Your task to perform on an android device: check android version Image 0: 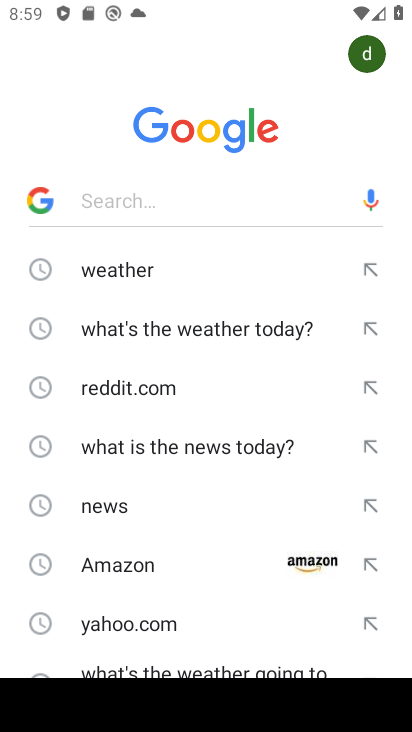
Step 0: press home button
Your task to perform on an android device: check android version Image 1: 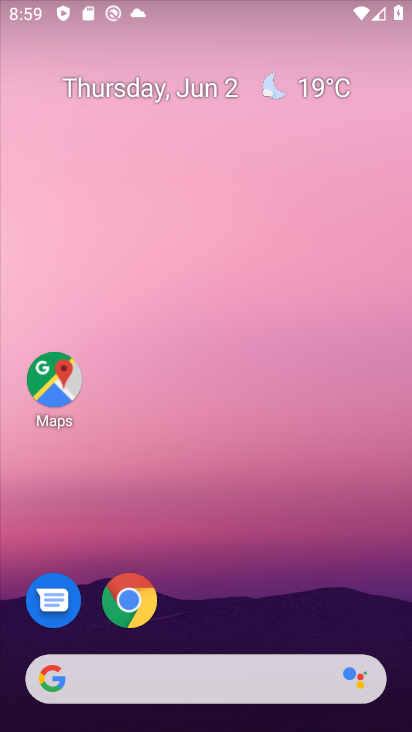
Step 1: drag from (221, 601) to (253, 247)
Your task to perform on an android device: check android version Image 2: 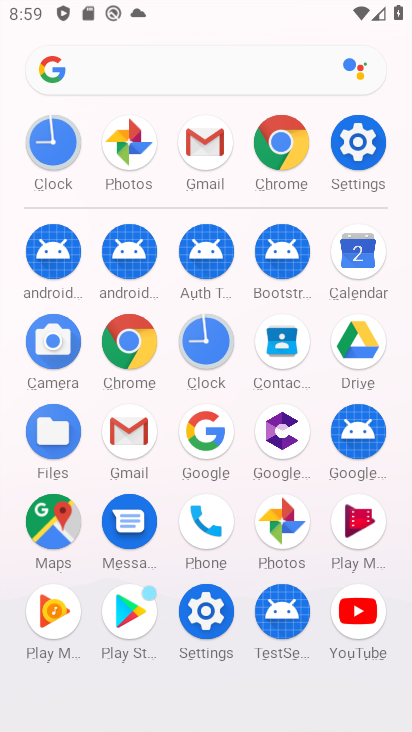
Step 2: click (185, 431)
Your task to perform on an android device: check android version Image 3: 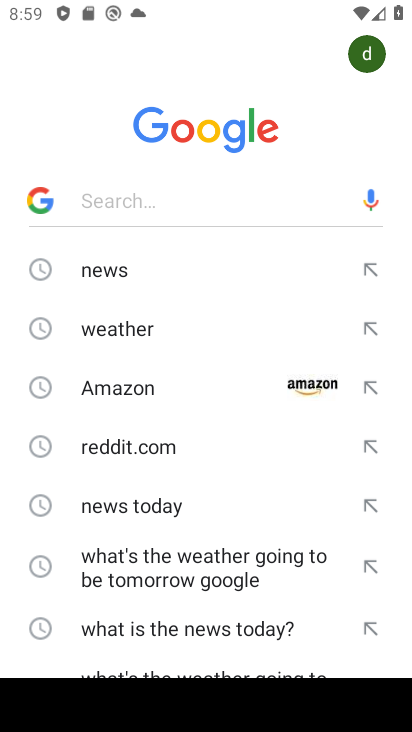
Step 3: press back button
Your task to perform on an android device: check android version Image 4: 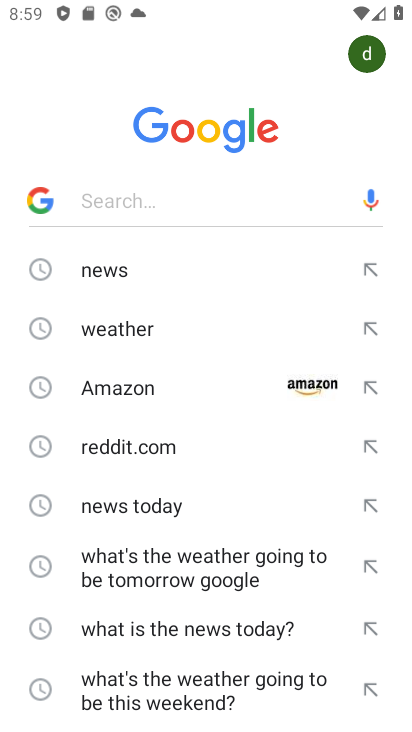
Step 4: press back button
Your task to perform on an android device: check android version Image 5: 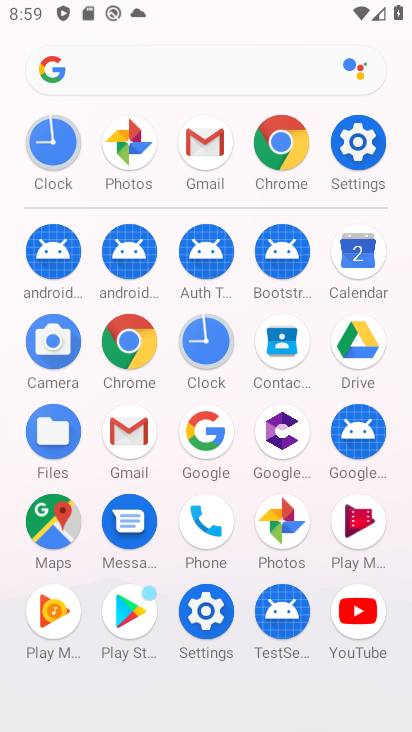
Step 5: click (209, 599)
Your task to perform on an android device: check android version Image 6: 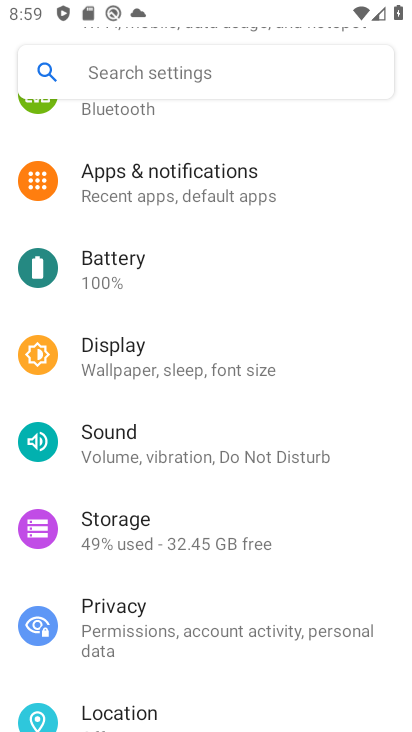
Step 6: drag from (186, 661) to (196, 350)
Your task to perform on an android device: check android version Image 7: 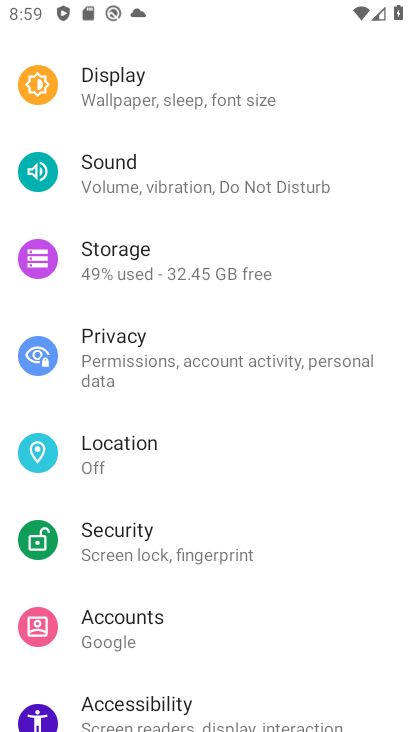
Step 7: drag from (198, 603) to (185, 229)
Your task to perform on an android device: check android version Image 8: 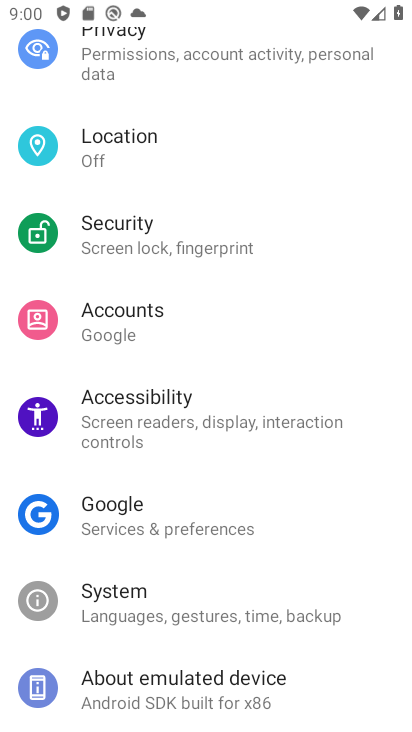
Step 8: drag from (178, 613) to (206, 212)
Your task to perform on an android device: check android version Image 9: 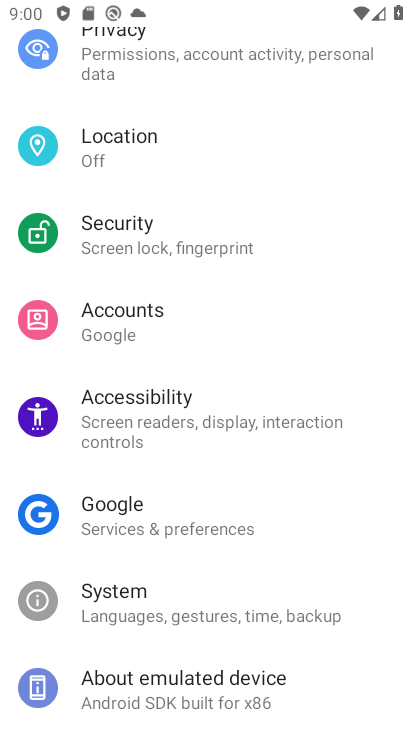
Step 9: click (167, 684)
Your task to perform on an android device: check android version Image 10: 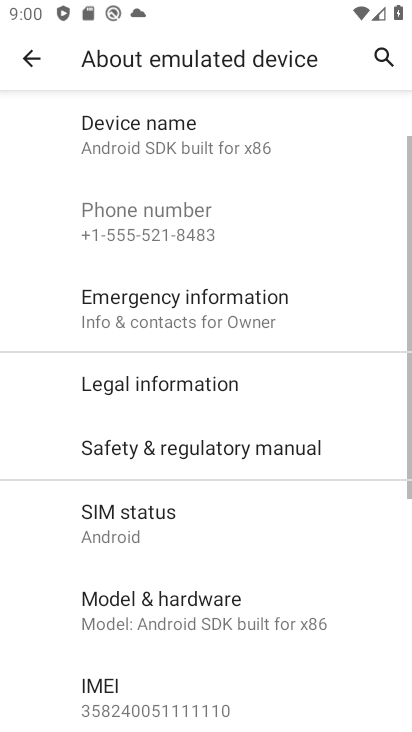
Step 10: drag from (169, 650) to (211, 350)
Your task to perform on an android device: check android version Image 11: 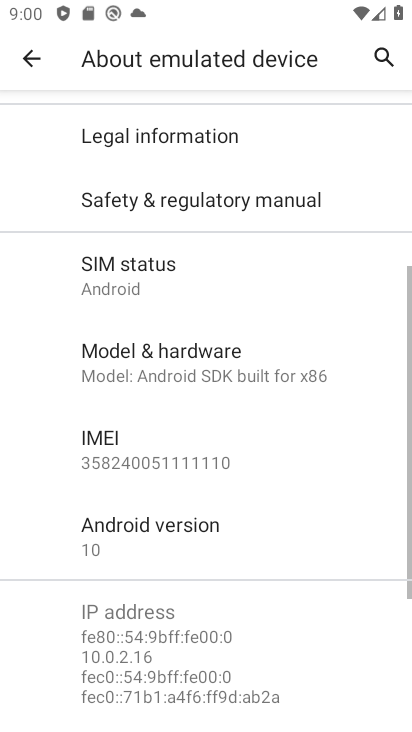
Step 11: click (160, 520)
Your task to perform on an android device: check android version Image 12: 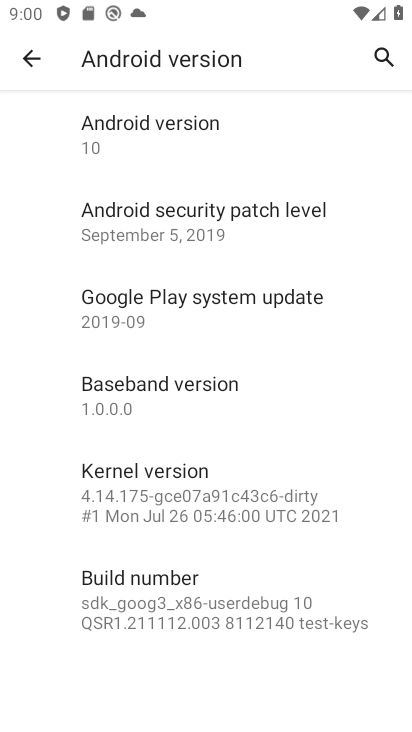
Step 12: click (192, 135)
Your task to perform on an android device: check android version Image 13: 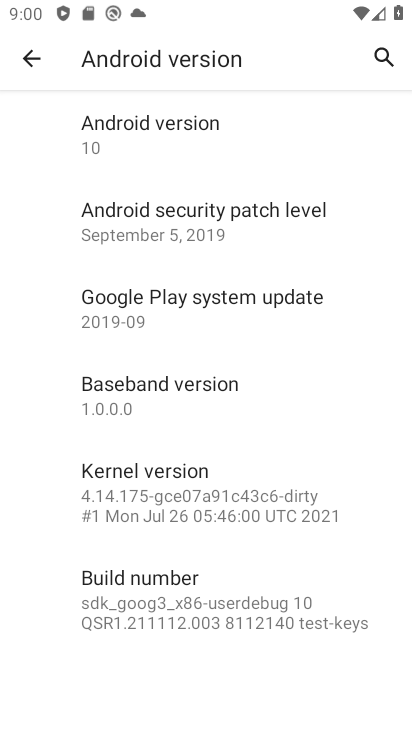
Step 13: click (192, 135)
Your task to perform on an android device: check android version Image 14: 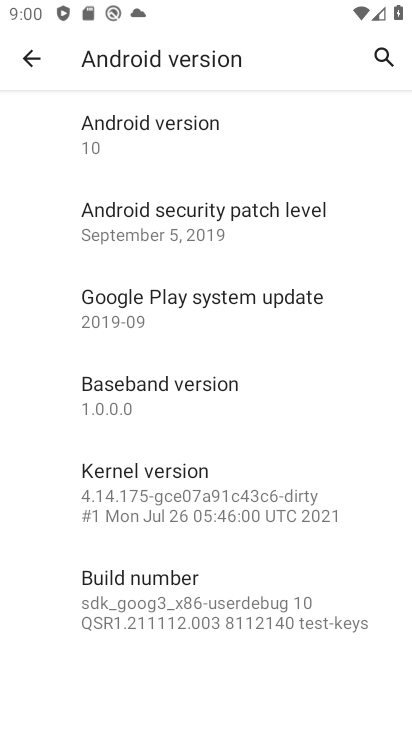
Step 14: click (192, 135)
Your task to perform on an android device: check android version Image 15: 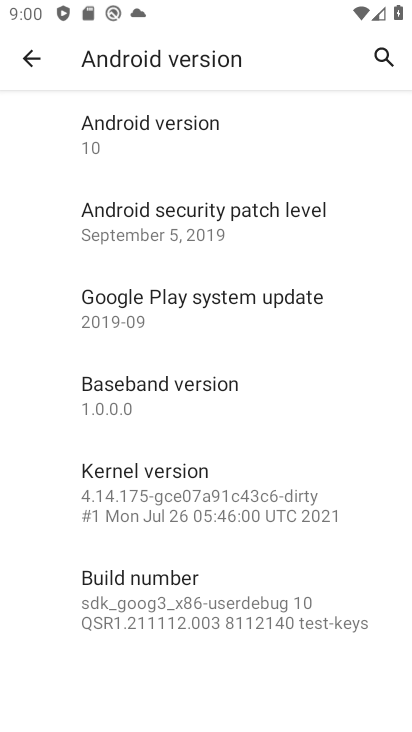
Step 15: task complete